Your task to perform on an android device: Go to Google maps Image 0: 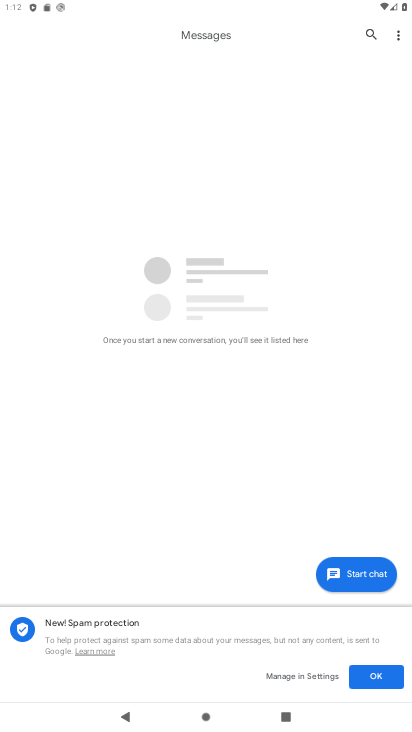
Step 0: press home button
Your task to perform on an android device: Go to Google maps Image 1: 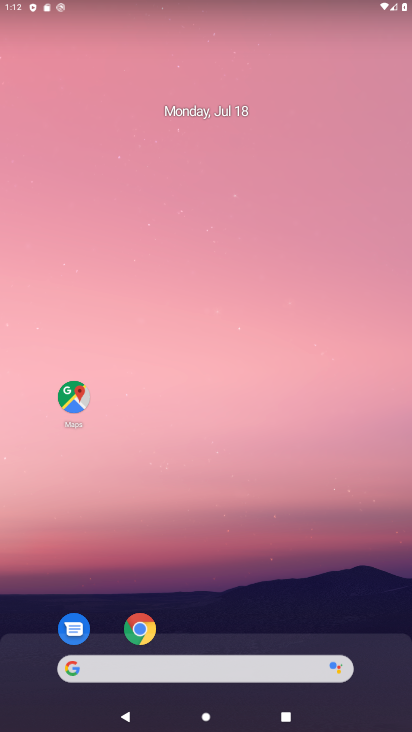
Step 1: click (62, 388)
Your task to perform on an android device: Go to Google maps Image 2: 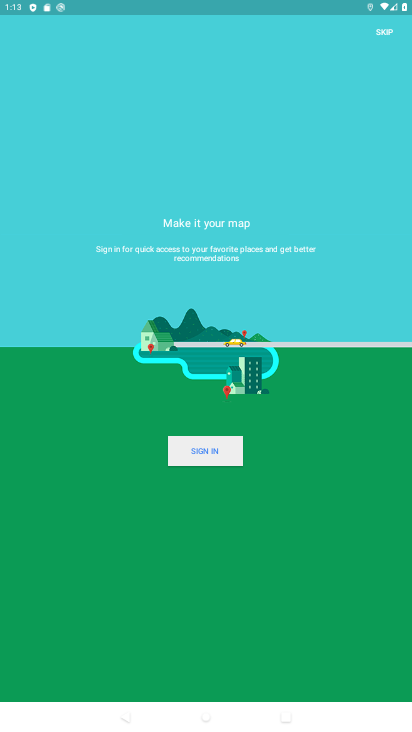
Step 2: task complete